Your task to perform on an android device: Open Google Chrome and open the bookmarks view Image 0: 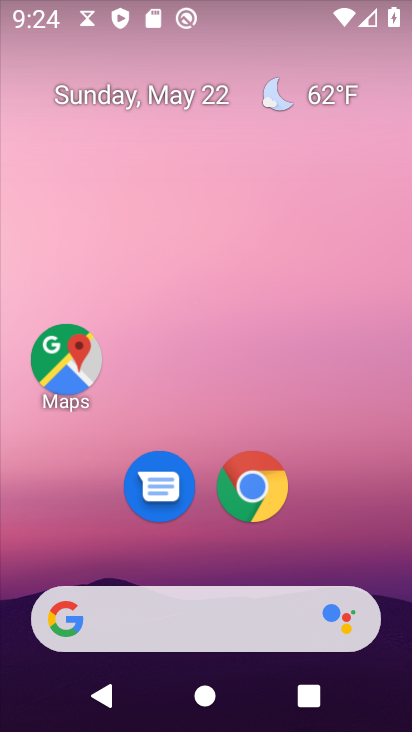
Step 0: press home button
Your task to perform on an android device: Open Google Chrome and open the bookmarks view Image 1: 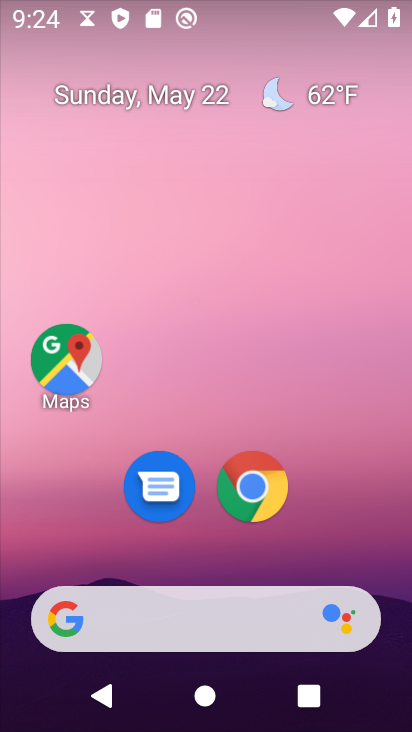
Step 1: drag from (202, 551) to (236, 23)
Your task to perform on an android device: Open Google Chrome and open the bookmarks view Image 2: 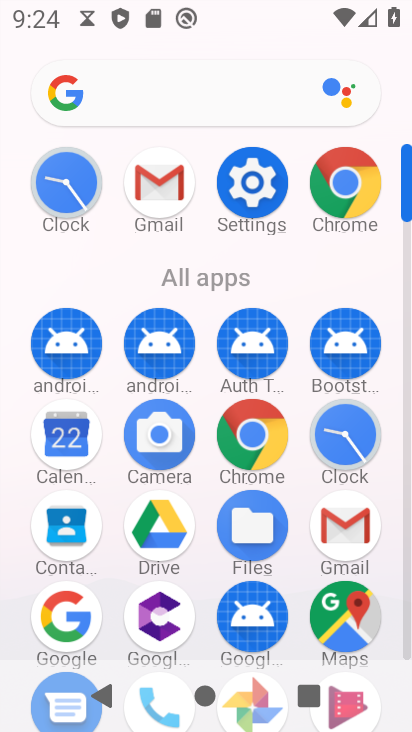
Step 2: click (341, 180)
Your task to perform on an android device: Open Google Chrome and open the bookmarks view Image 3: 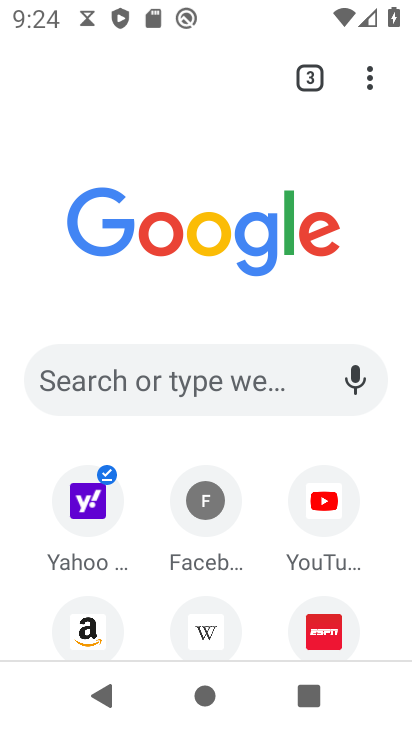
Step 3: click (368, 76)
Your task to perform on an android device: Open Google Chrome and open the bookmarks view Image 4: 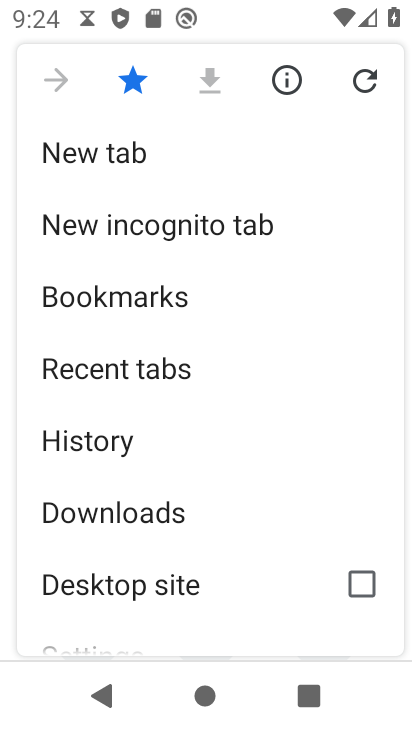
Step 4: click (201, 295)
Your task to perform on an android device: Open Google Chrome and open the bookmarks view Image 5: 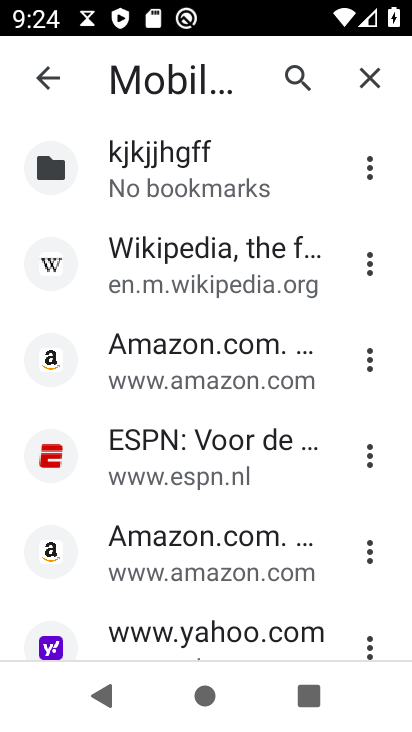
Step 5: click (197, 266)
Your task to perform on an android device: Open Google Chrome and open the bookmarks view Image 6: 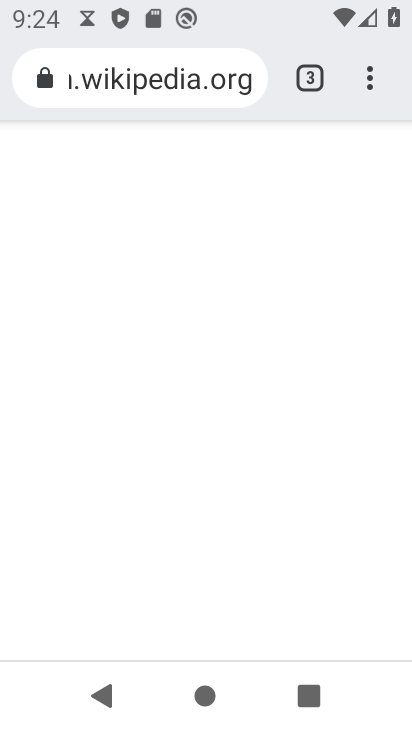
Step 6: task complete